Your task to perform on an android device: Go to location settings Image 0: 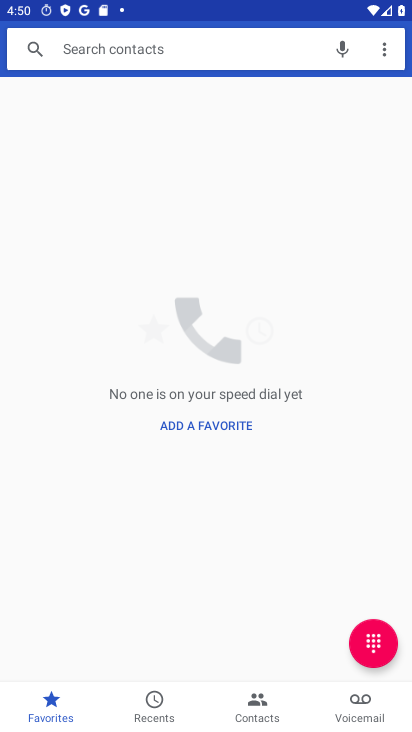
Step 0: press home button
Your task to perform on an android device: Go to location settings Image 1: 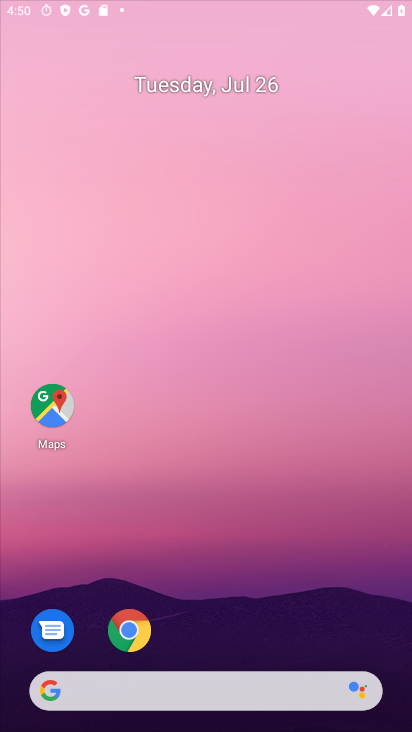
Step 1: drag from (316, 648) to (260, 83)
Your task to perform on an android device: Go to location settings Image 2: 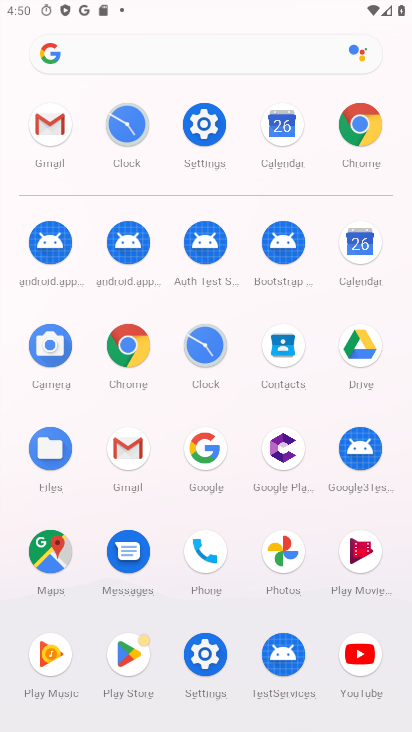
Step 2: click (213, 121)
Your task to perform on an android device: Go to location settings Image 3: 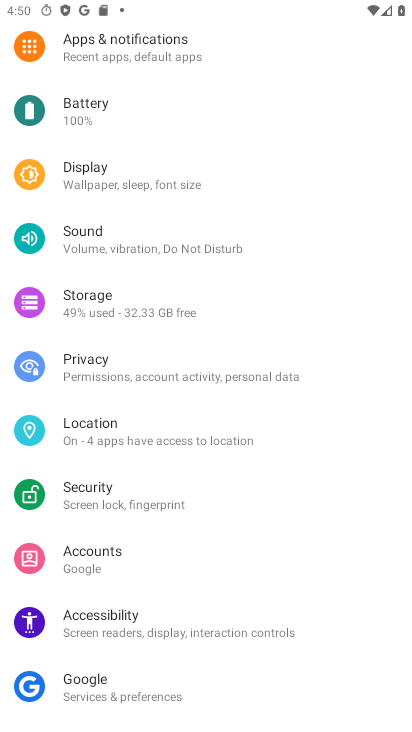
Step 3: click (149, 425)
Your task to perform on an android device: Go to location settings Image 4: 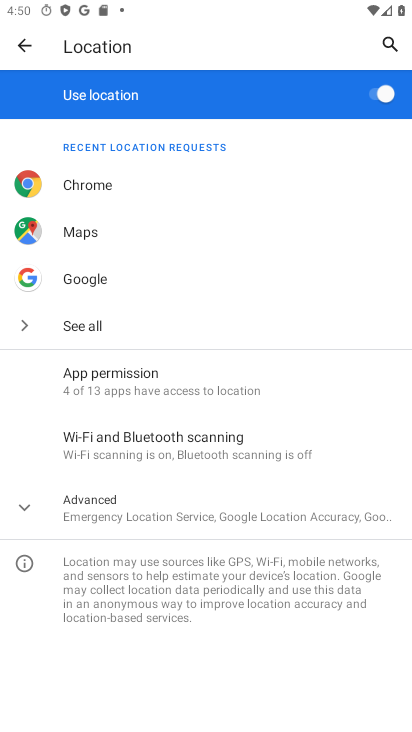
Step 4: task complete